Your task to perform on an android device: What's the weather going to be this weekend? Image 0: 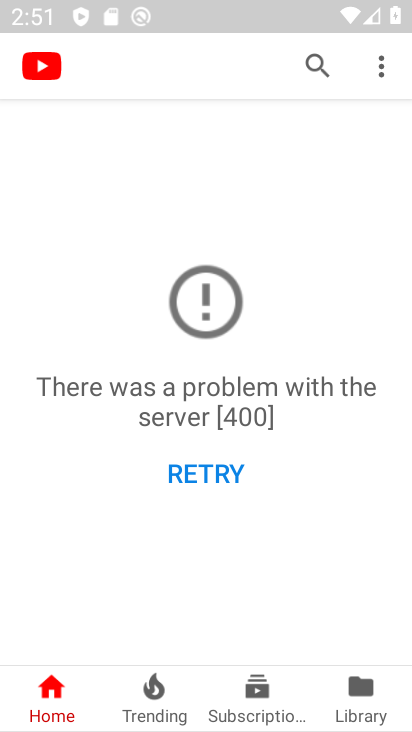
Step 0: press home button
Your task to perform on an android device: What's the weather going to be this weekend? Image 1: 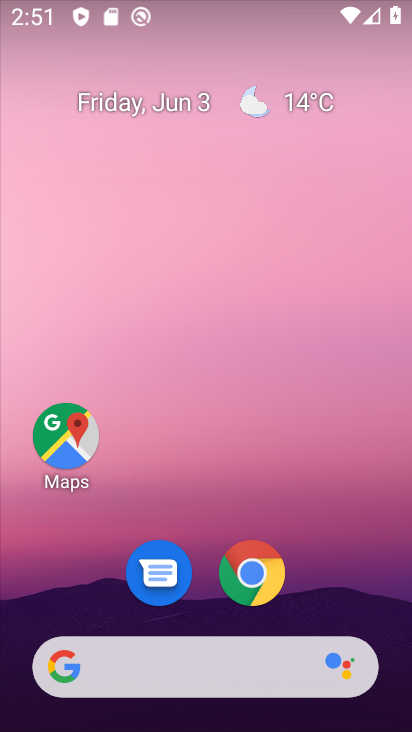
Step 1: drag from (21, 262) to (331, 297)
Your task to perform on an android device: What's the weather going to be this weekend? Image 2: 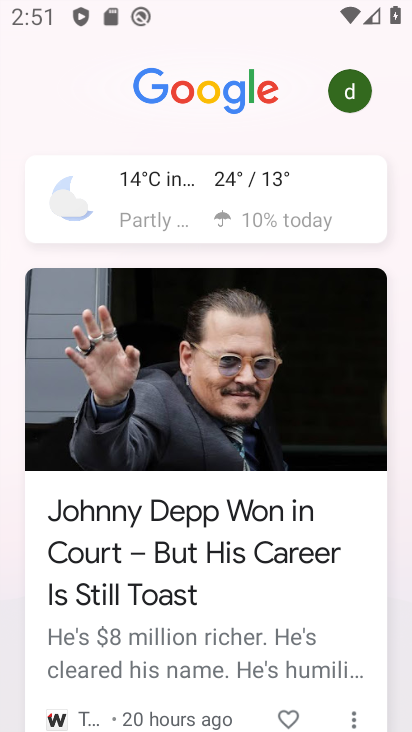
Step 2: click (171, 217)
Your task to perform on an android device: What's the weather going to be this weekend? Image 3: 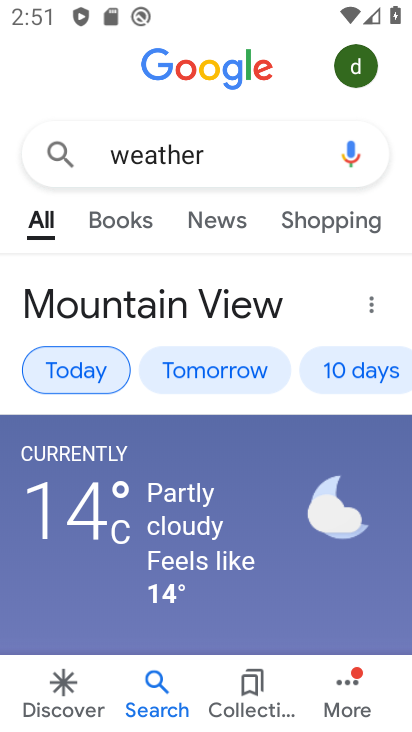
Step 3: click (357, 375)
Your task to perform on an android device: What's the weather going to be this weekend? Image 4: 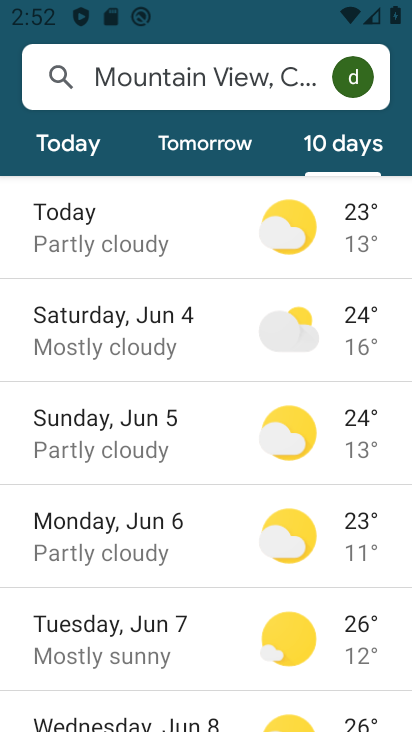
Step 4: task complete